Your task to perform on an android device: Is it going to rain this weekend? Image 0: 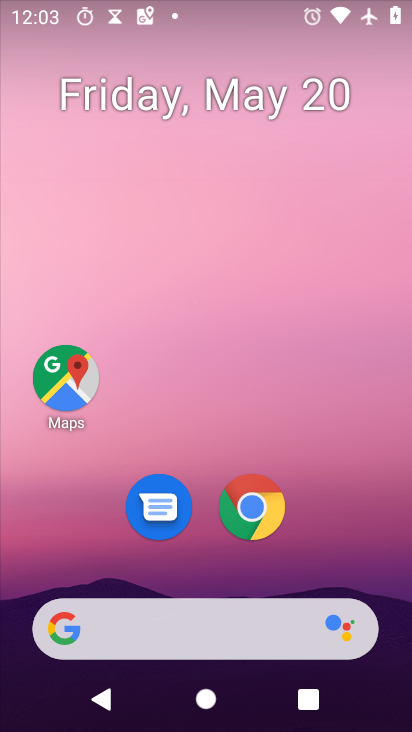
Step 0: drag from (356, 504) to (284, 35)
Your task to perform on an android device: Is it going to rain this weekend? Image 1: 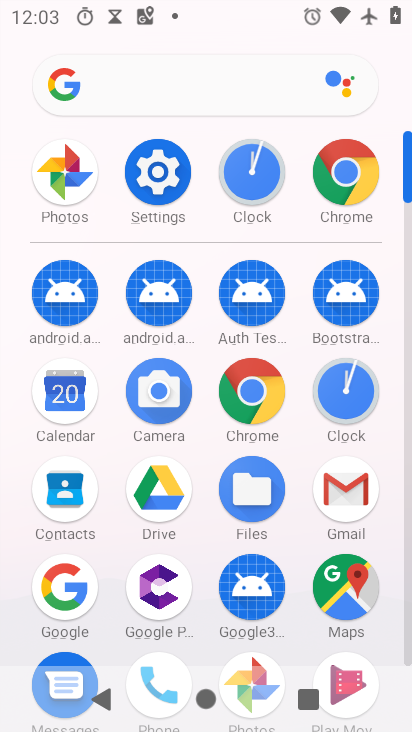
Step 1: drag from (14, 515) to (14, 271)
Your task to perform on an android device: Is it going to rain this weekend? Image 2: 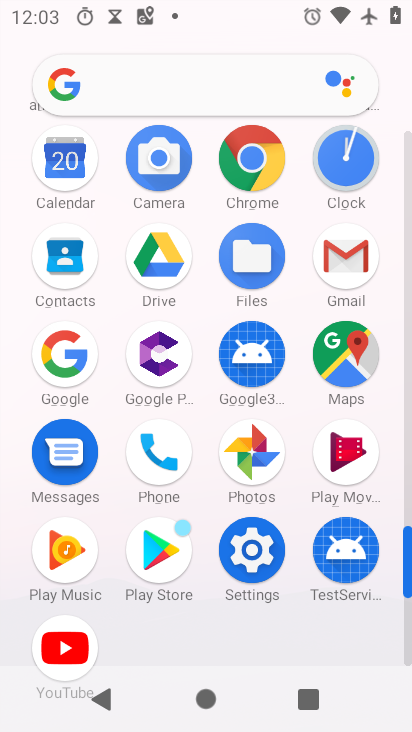
Step 2: drag from (18, 587) to (17, 241)
Your task to perform on an android device: Is it going to rain this weekend? Image 3: 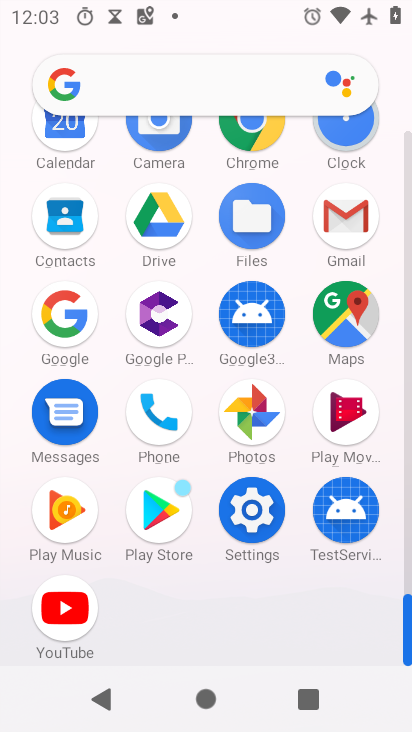
Step 3: drag from (8, 189) to (19, 403)
Your task to perform on an android device: Is it going to rain this weekend? Image 4: 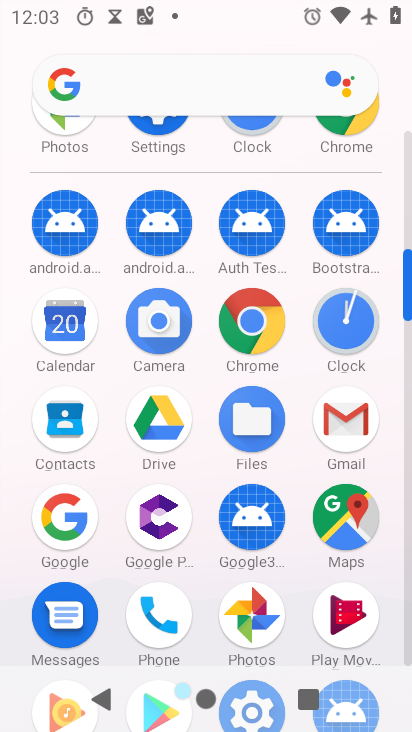
Step 4: click (252, 331)
Your task to perform on an android device: Is it going to rain this weekend? Image 5: 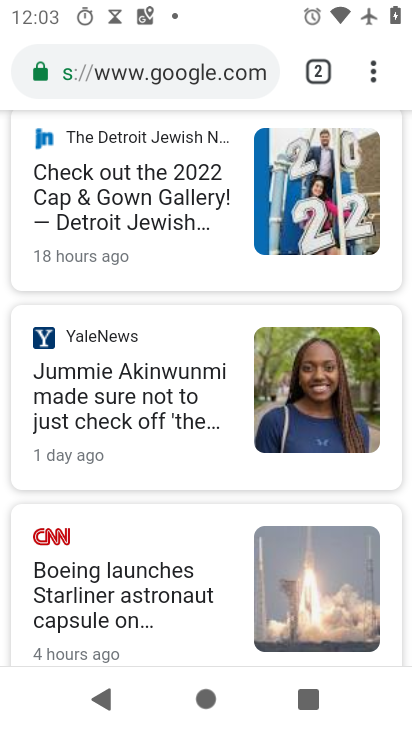
Step 5: click (101, 67)
Your task to perform on an android device: Is it going to rain this weekend? Image 6: 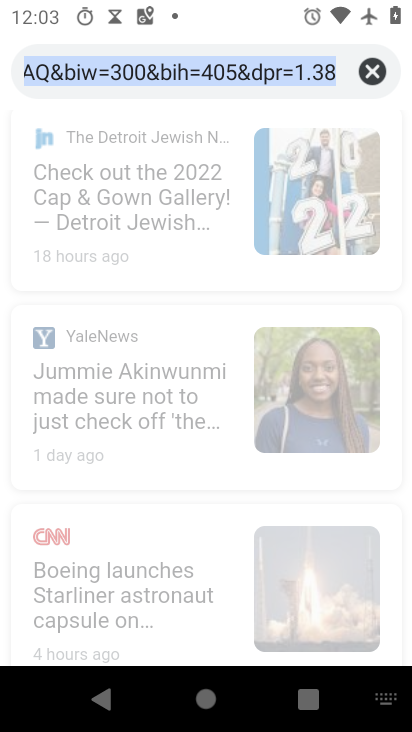
Step 6: click (369, 69)
Your task to perform on an android device: Is it going to rain this weekend? Image 7: 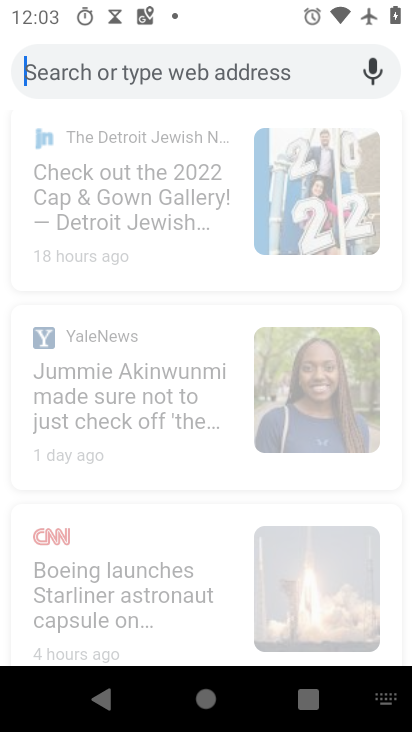
Step 7: type "Is it going to rain this weekend?"
Your task to perform on an android device: Is it going to rain this weekend? Image 8: 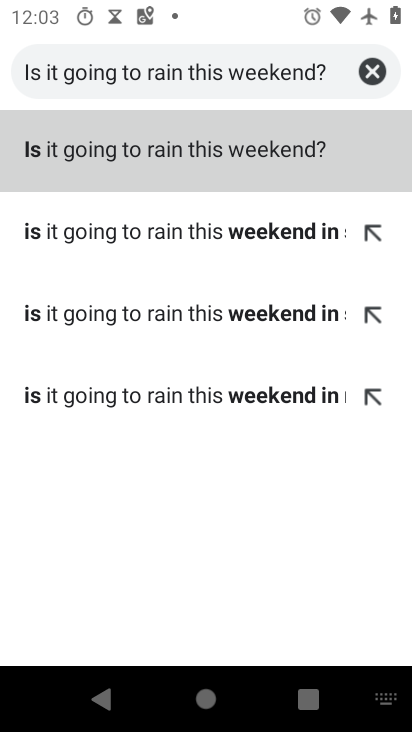
Step 8: click (147, 140)
Your task to perform on an android device: Is it going to rain this weekend? Image 9: 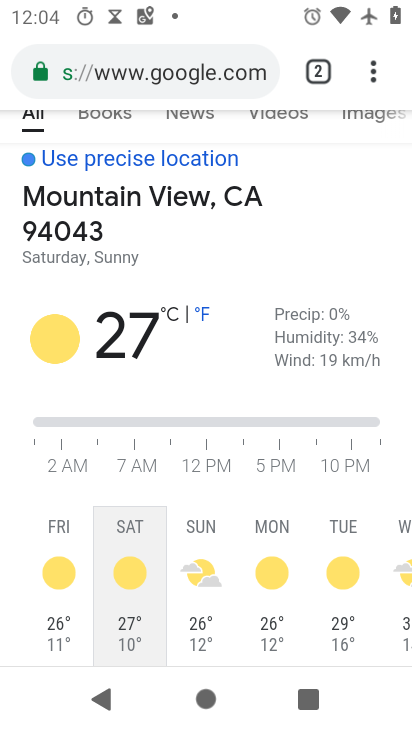
Step 9: task complete